Your task to perform on an android device: Search for logitech g502 on walmart, select the first entry, add it to the cart, then select checkout. Image 0: 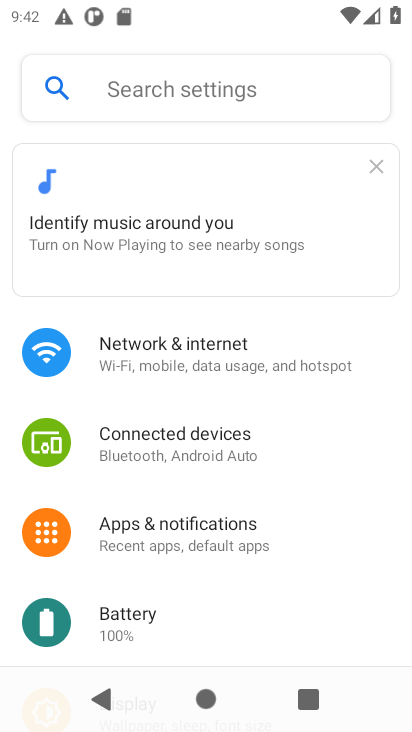
Step 0: press home button
Your task to perform on an android device: Search for logitech g502 on walmart, select the first entry, add it to the cart, then select checkout. Image 1: 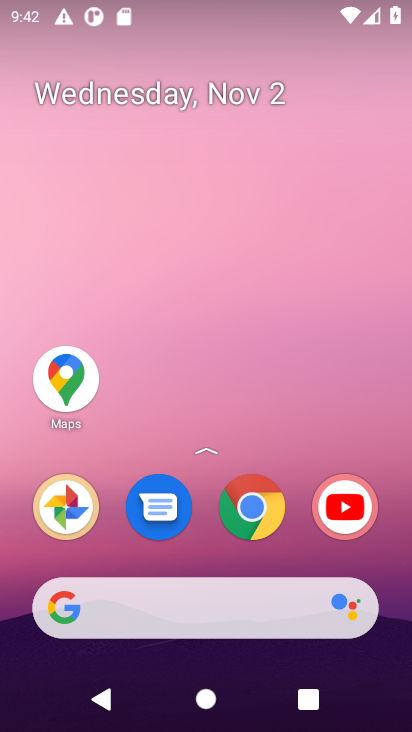
Step 1: click (235, 608)
Your task to perform on an android device: Search for logitech g502 on walmart, select the first entry, add it to the cart, then select checkout. Image 2: 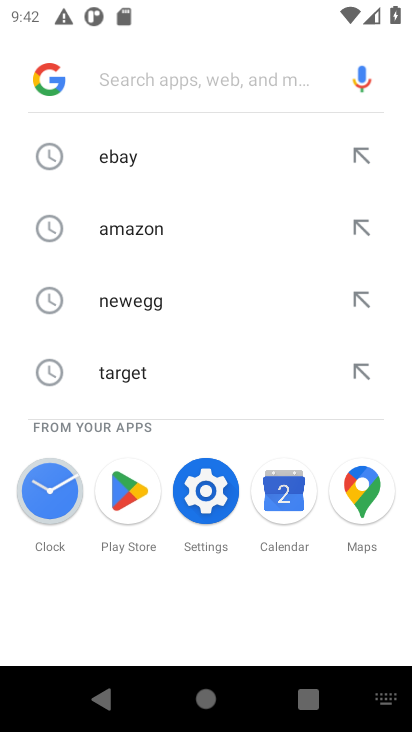
Step 2: type "walmart"
Your task to perform on an android device: Search for logitech g502 on walmart, select the first entry, add it to the cart, then select checkout. Image 3: 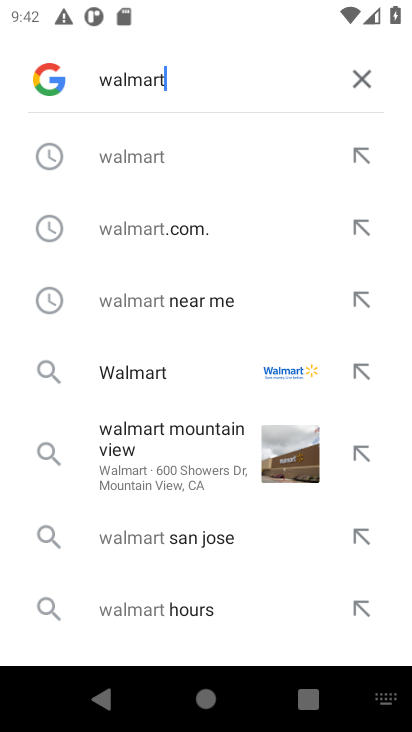
Step 3: click (205, 162)
Your task to perform on an android device: Search for logitech g502 on walmart, select the first entry, add it to the cart, then select checkout. Image 4: 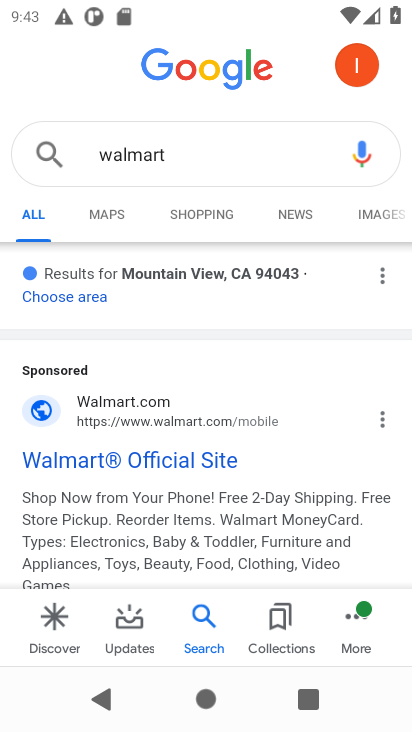
Step 4: click (134, 438)
Your task to perform on an android device: Search for logitech g502 on walmart, select the first entry, add it to the cart, then select checkout. Image 5: 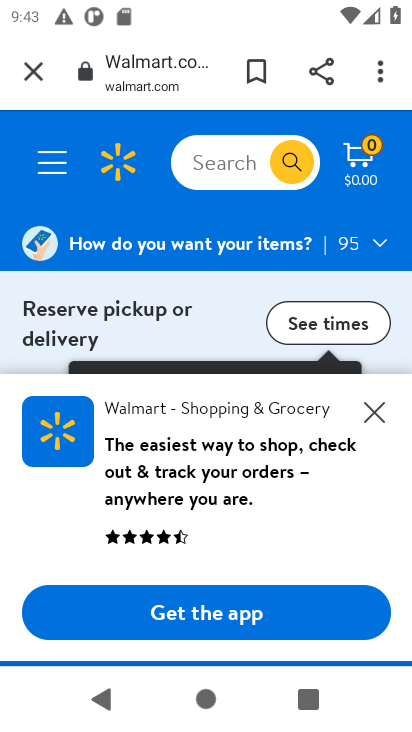
Step 5: click (367, 405)
Your task to perform on an android device: Search for logitech g502 on walmart, select the first entry, add it to the cart, then select checkout. Image 6: 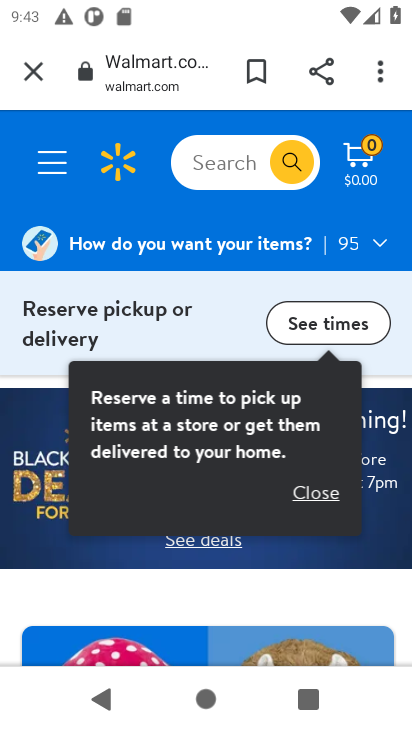
Step 6: click (202, 175)
Your task to perform on an android device: Search for logitech g502 on walmart, select the first entry, add it to the cart, then select checkout. Image 7: 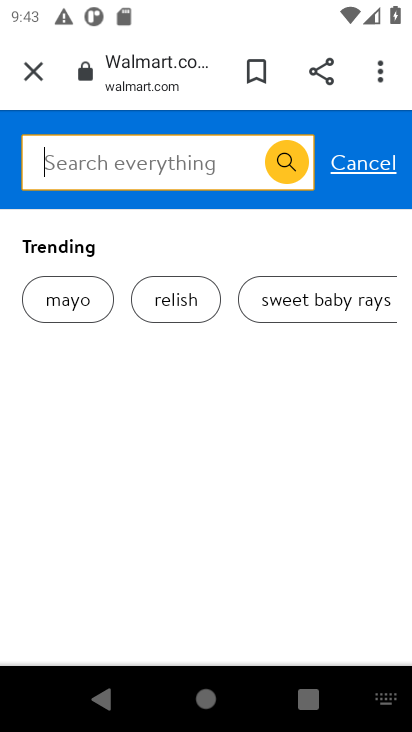
Step 7: type "logitech g502"
Your task to perform on an android device: Search for logitech g502 on walmart, select the first entry, add it to the cart, then select checkout. Image 8: 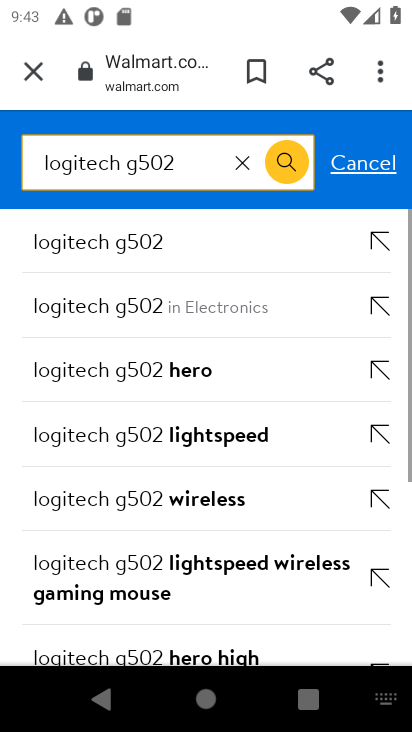
Step 8: click (254, 251)
Your task to perform on an android device: Search for logitech g502 on walmart, select the first entry, add it to the cart, then select checkout. Image 9: 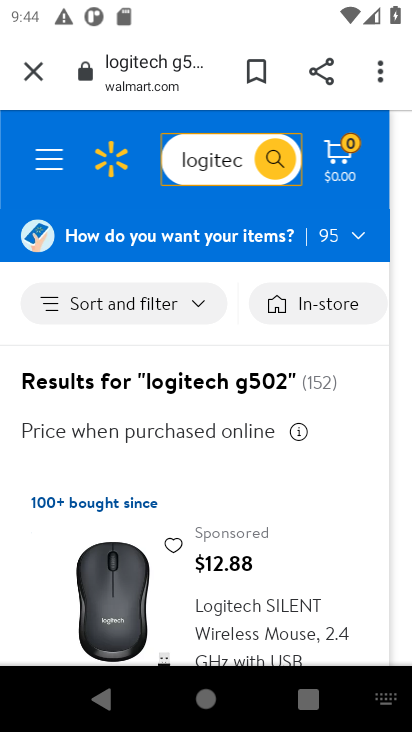
Step 9: click (257, 544)
Your task to perform on an android device: Search for logitech g502 on walmart, select the first entry, add it to the cart, then select checkout. Image 10: 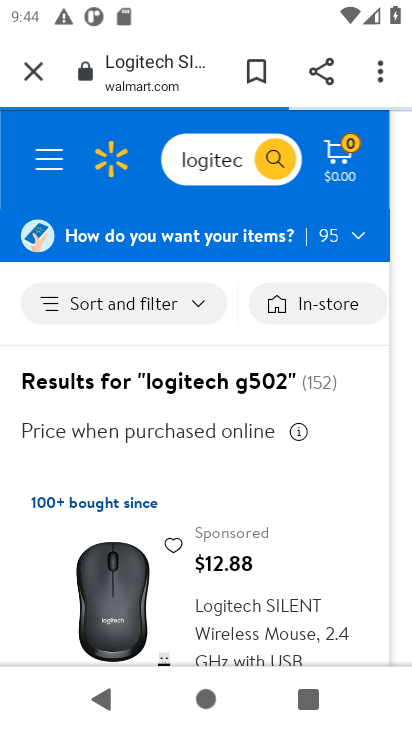
Step 10: task complete